Your task to perform on an android device: Open calendar and show me the second week of next month Image 0: 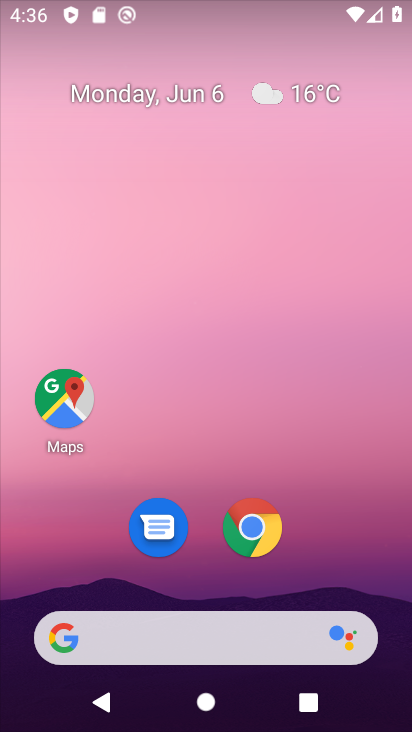
Step 0: drag from (386, 685) to (341, 96)
Your task to perform on an android device: Open calendar and show me the second week of next month Image 1: 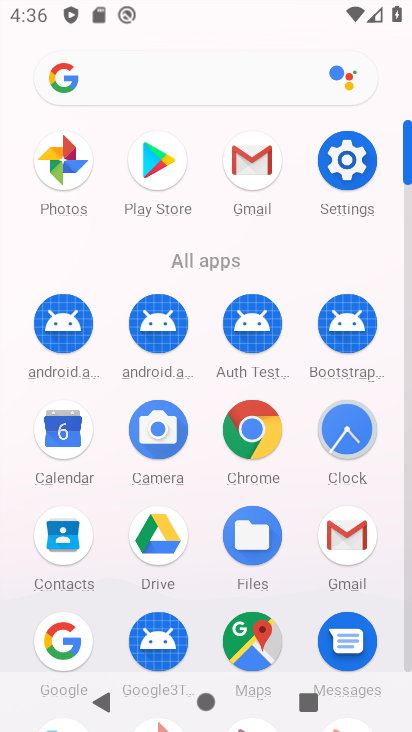
Step 1: click (63, 433)
Your task to perform on an android device: Open calendar and show me the second week of next month Image 2: 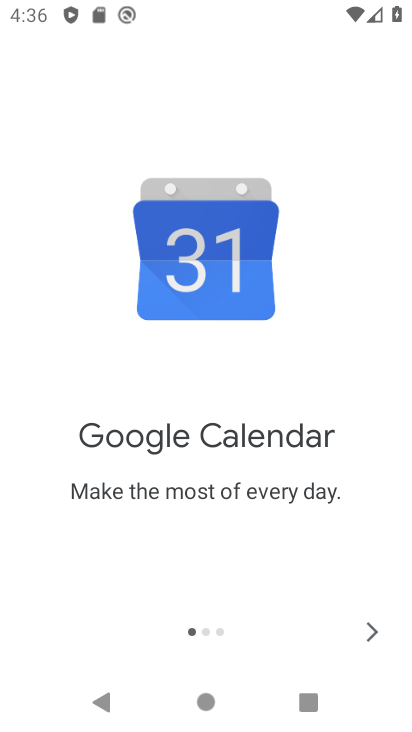
Step 2: click (374, 621)
Your task to perform on an android device: Open calendar and show me the second week of next month Image 3: 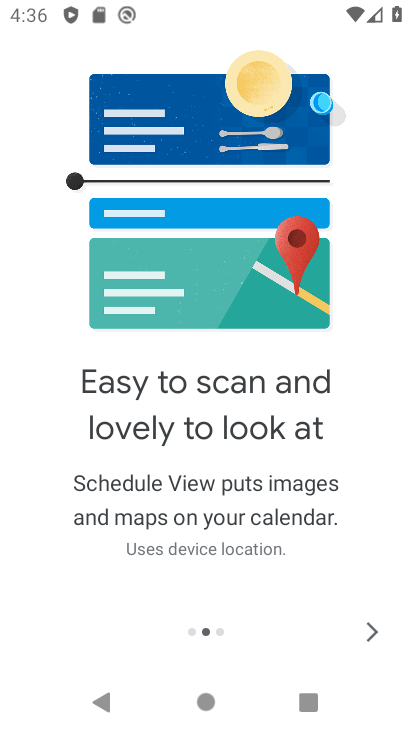
Step 3: click (374, 621)
Your task to perform on an android device: Open calendar and show me the second week of next month Image 4: 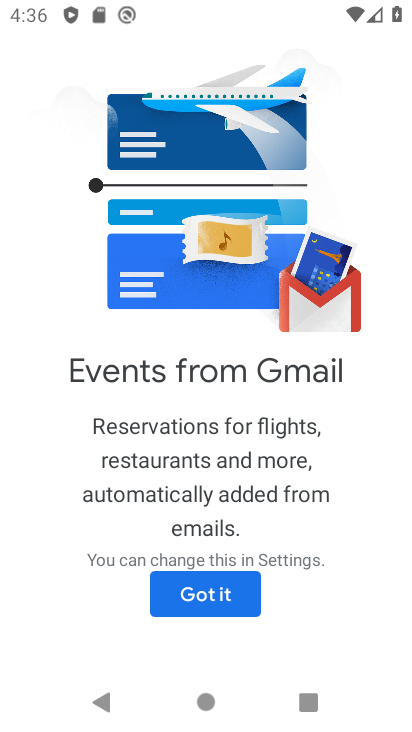
Step 4: click (244, 591)
Your task to perform on an android device: Open calendar and show me the second week of next month Image 5: 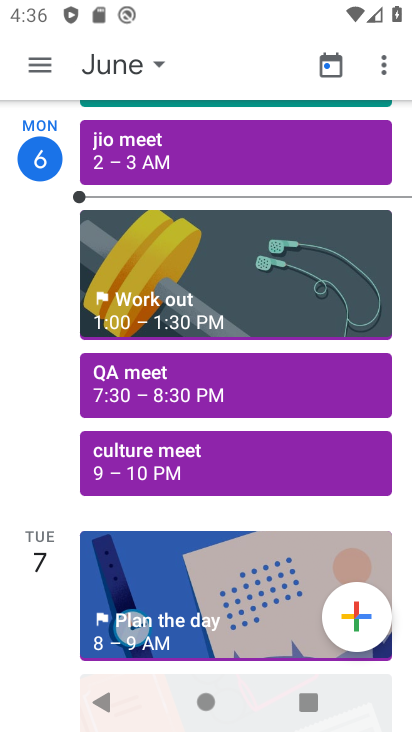
Step 5: click (381, 62)
Your task to perform on an android device: Open calendar and show me the second week of next month Image 6: 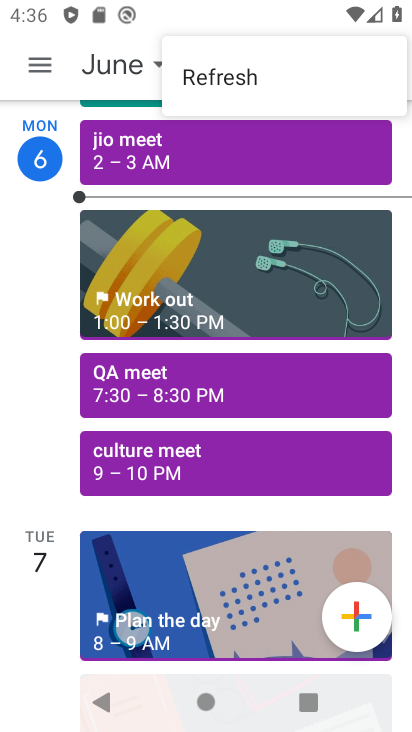
Step 6: click (157, 57)
Your task to perform on an android device: Open calendar and show me the second week of next month Image 7: 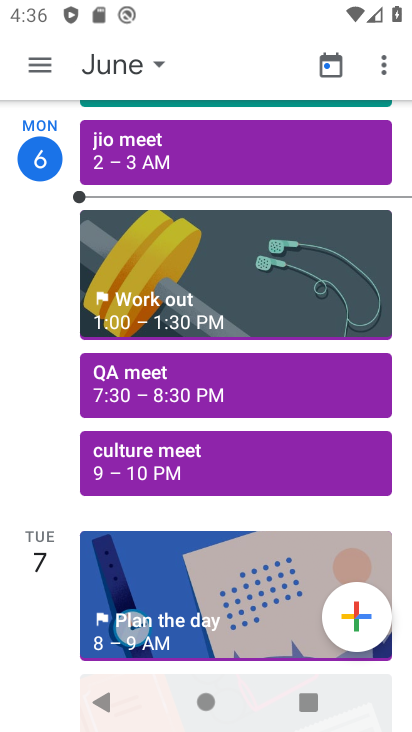
Step 7: click (157, 61)
Your task to perform on an android device: Open calendar and show me the second week of next month Image 8: 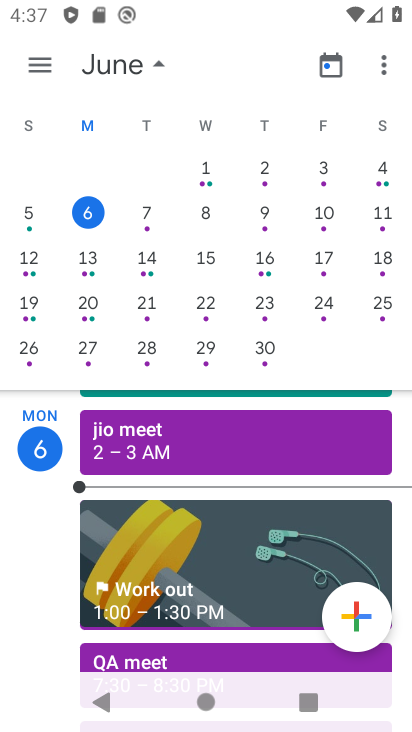
Step 8: drag from (361, 253) to (25, 240)
Your task to perform on an android device: Open calendar and show me the second week of next month Image 9: 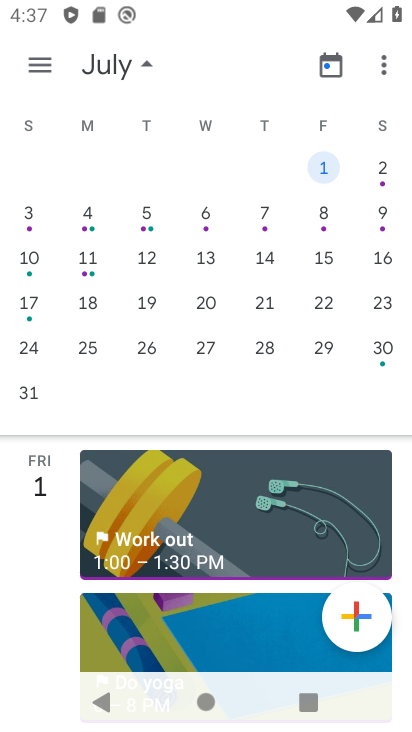
Step 9: click (206, 212)
Your task to perform on an android device: Open calendar and show me the second week of next month Image 10: 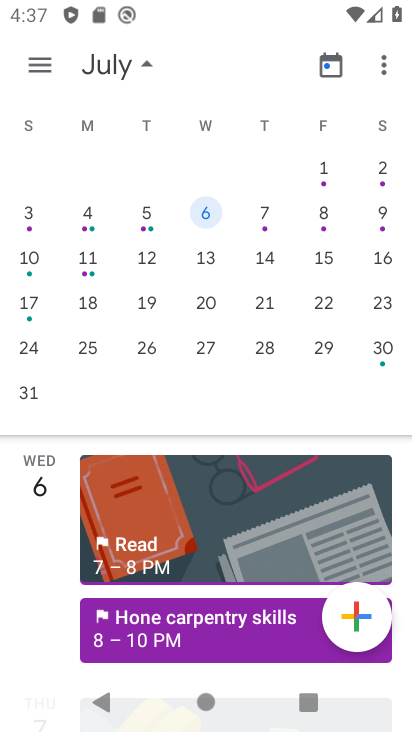
Step 10: click (35, 63)
Your task to perform on an android device: Open calendar and show me the second week of next month Image 11: 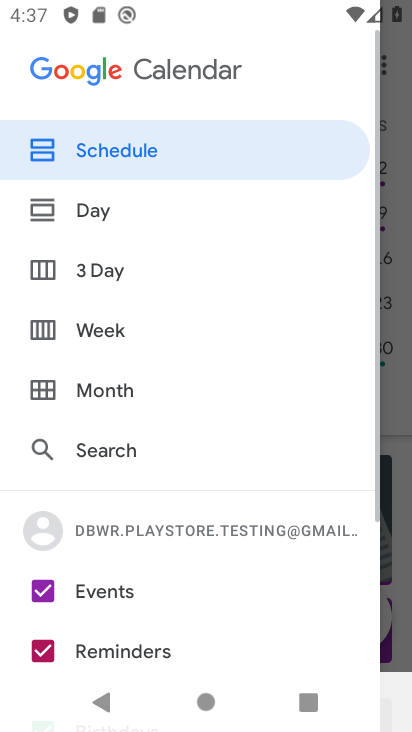
Step 11: click (97, 325)
Your task to perform on an android device: Open calendar and show me the second week of next month Image 12: 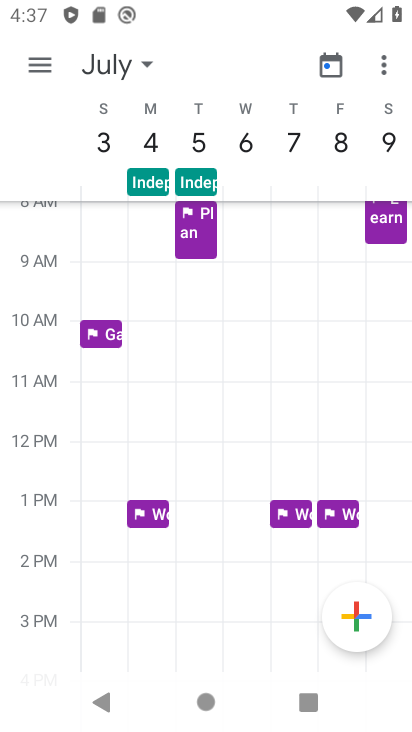
Step 12: click (38, 70)
Your task to perform on an android device: Open calendar and show me the second week of next month Image 13: 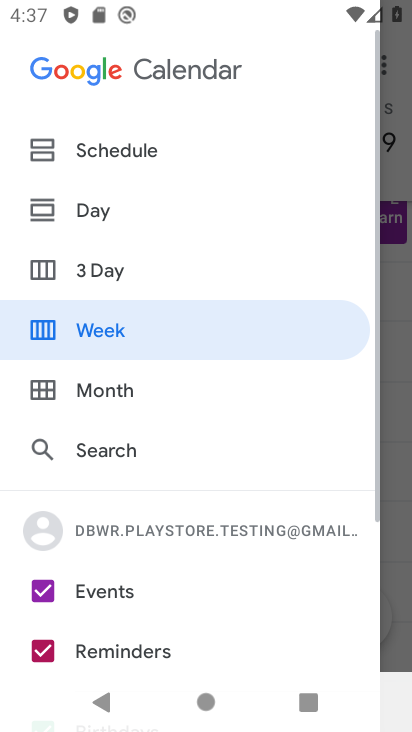
Step 13: click (86, 144)
Your task to perform on an android device: Open calendar and show me the second week of next month Image 14: 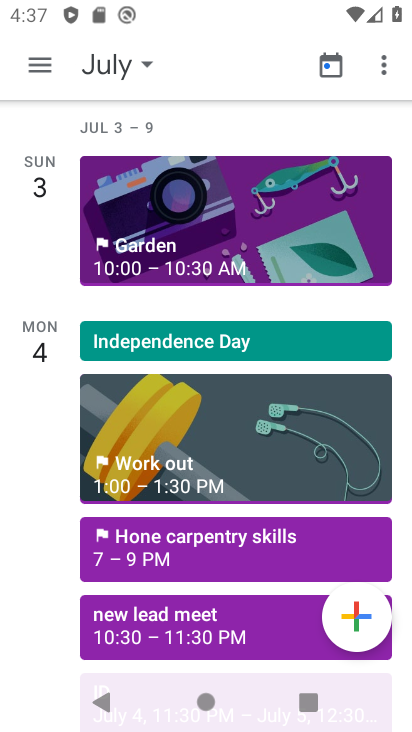
Step 14: task complete